Your task to perform on an android device: Open Google Maps Image 0: 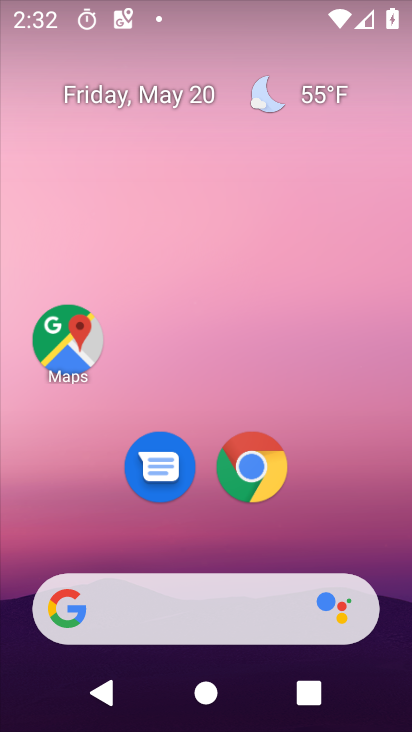
Step 0: click (78, 344)
Your task to perform on an android device: Open Google Maps Image 1: 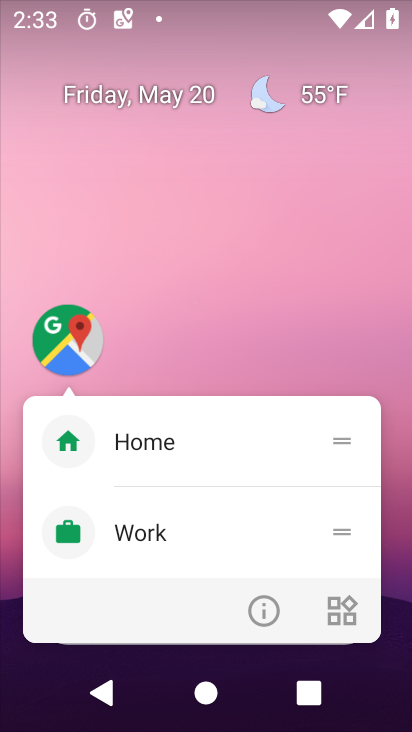
Step 1: click (42, 360)
Your task to perform on an android device: Open Google Maps Image 2: 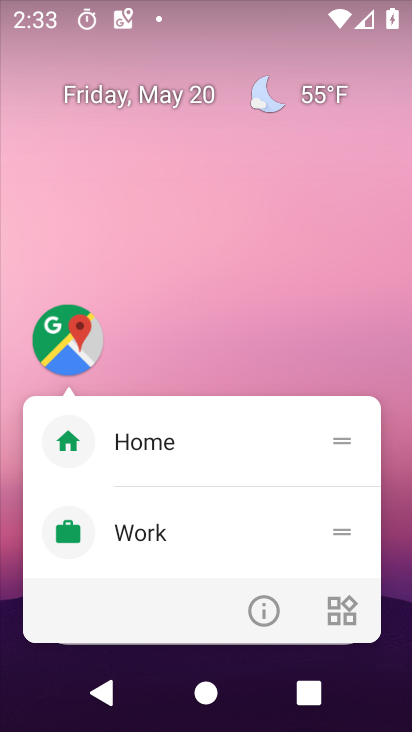
Step 2: click (48, 351)
Your task to perform on an android device: Open Google Maps Image 3: 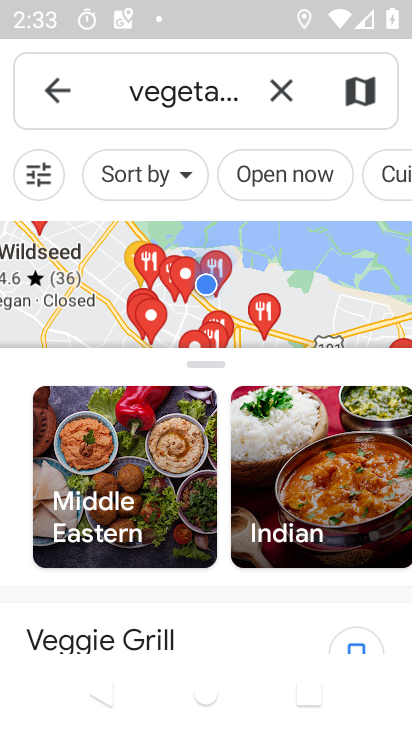
Step 3: click (47, 90)
Your task to perform on an android device: Open Google Maps Image 4: 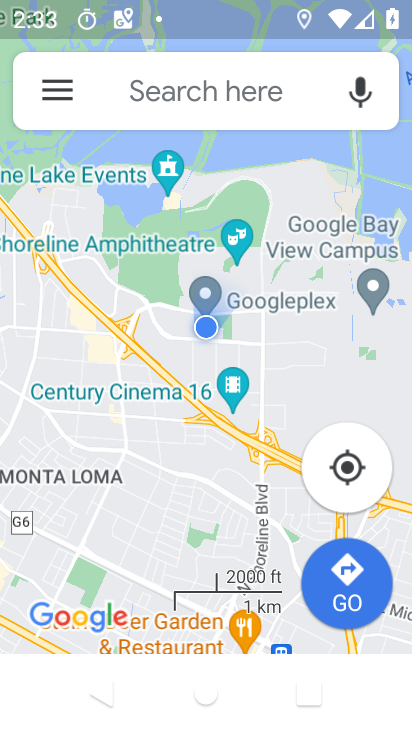
Step 4: task complete